Your task to perform on an android device: toggle location history Image 0: 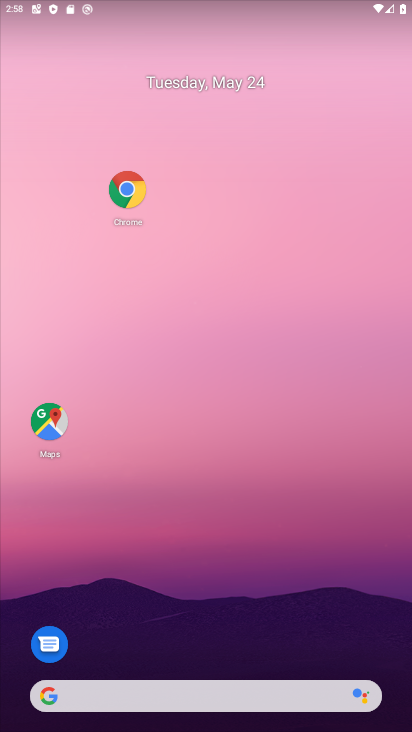
Step 0: drag from (241, 585) to (297, 61)
Your task to perform on an android device: toggle location history Image 1: 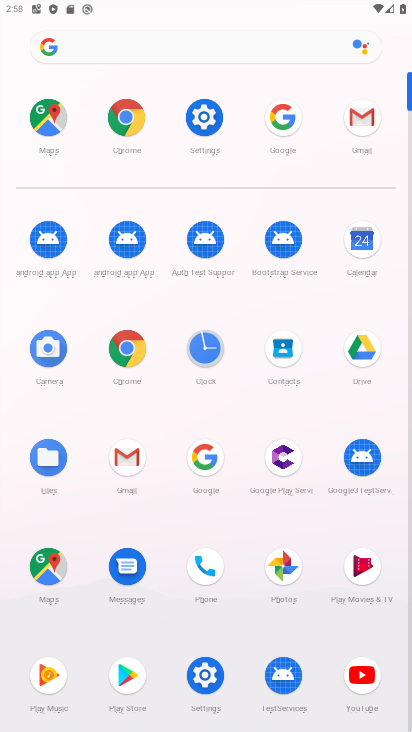
Step 1: click (203, 663)
Your task to perform on an android device: toggle location history Image 2: 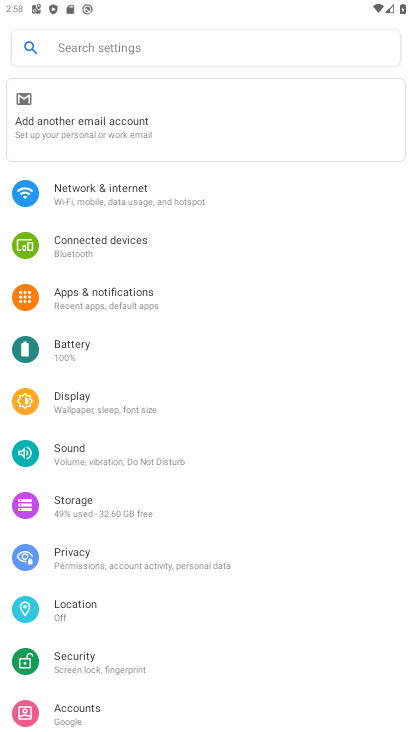
Step 2: click (90, 612)
Your task to perform on an android device: toggle location history Image 3: 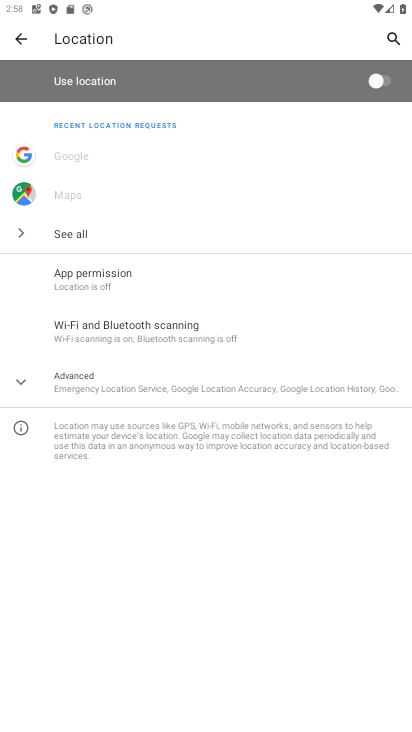
Step 3: click (93, 382)
Your task to perform on an android device: toggle location history Image 4: 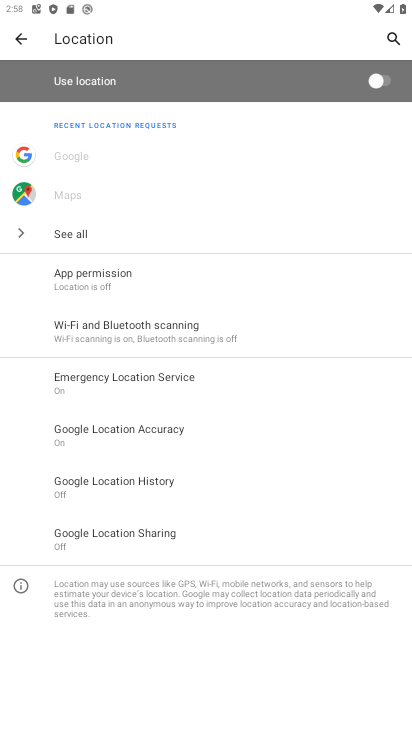
Step 4: click (172, 485)
Your task to perform on an android device: toggle location history Image 5: 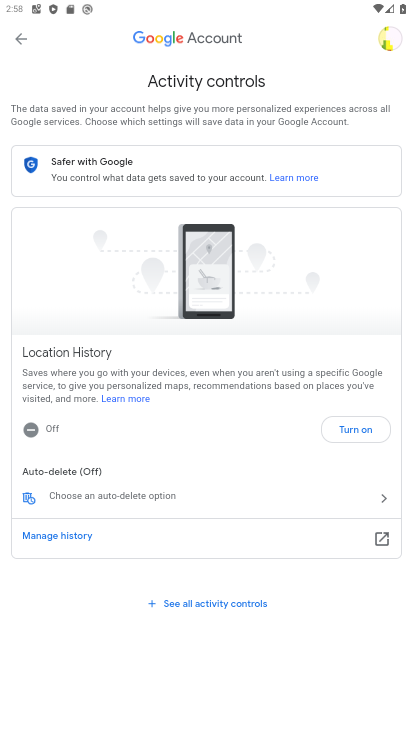
Step 5: click (358, 427)
Your task to perform on an android device: toggle location history Image 6: 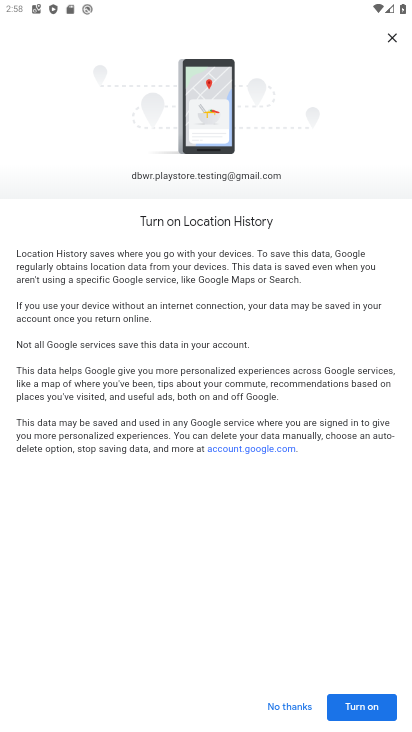
Step 6: click (369, 705)
Your task to perform on an android device: toggle location history Image 7: 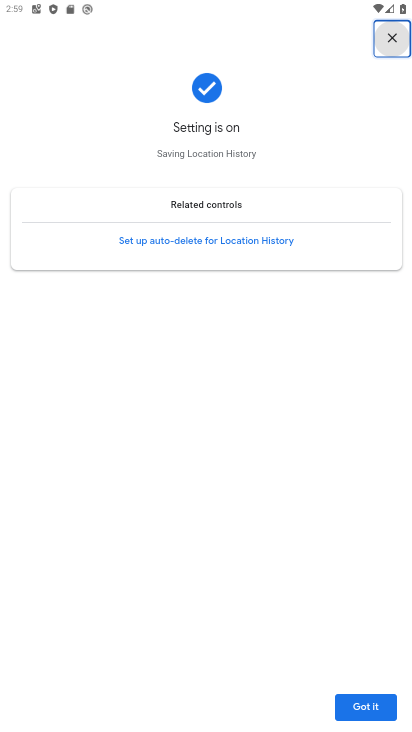
Step 7: click (369, 719)
Your task to perform on an android device: toggle location history Image 8: 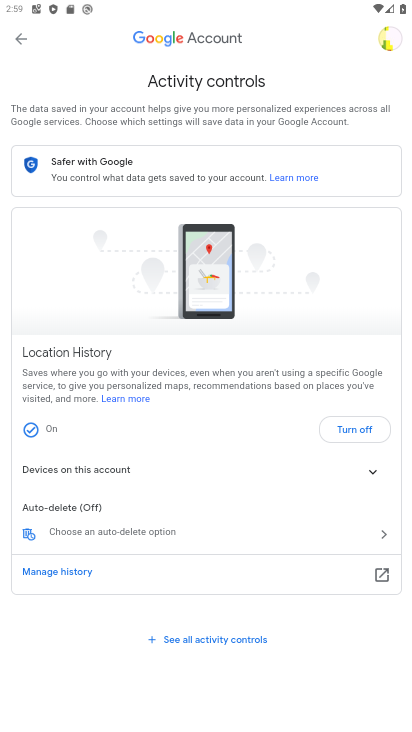
Step 8: task complete